Your task to perform on an android device: manage bookmarks in the chrome app Image 0: 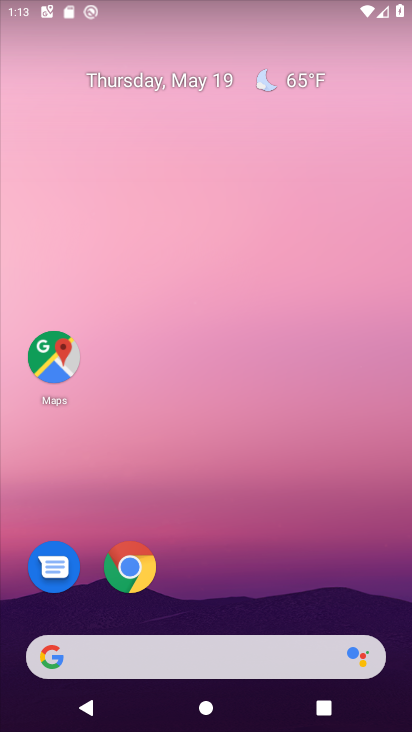
Step 0: click (118, 567)
Your task to perform on an android device: manage bookmarks in the chrome app Image 1: 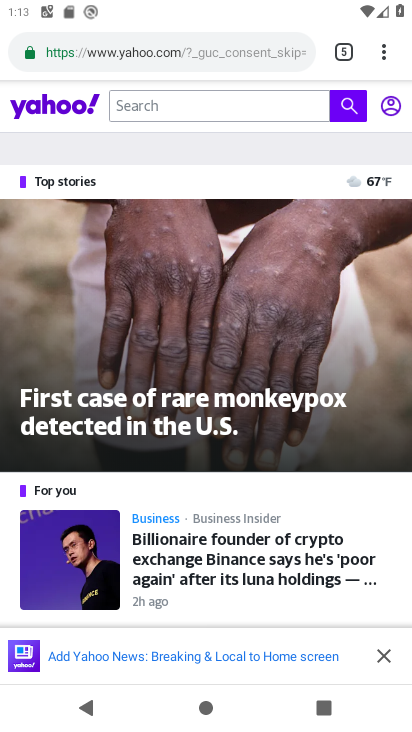
Step 1: click (391, 43)
Your task to perform on an android device: manage bookmarks in the chrome app Image 2: 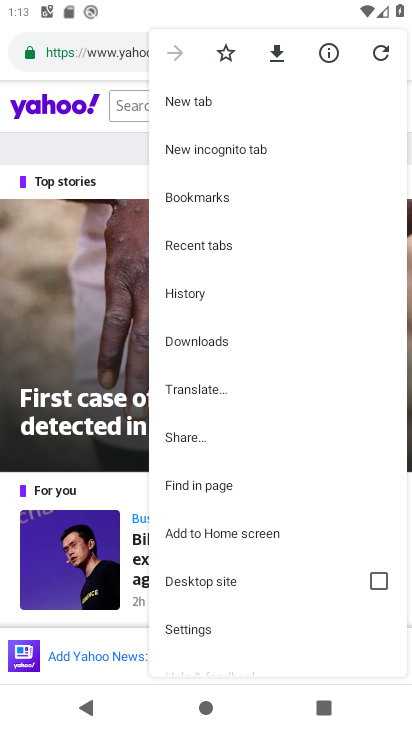
Step 2: click (260, 194)
Your task to perform on an android device: manage bookmarks in the chrome app Image 3: 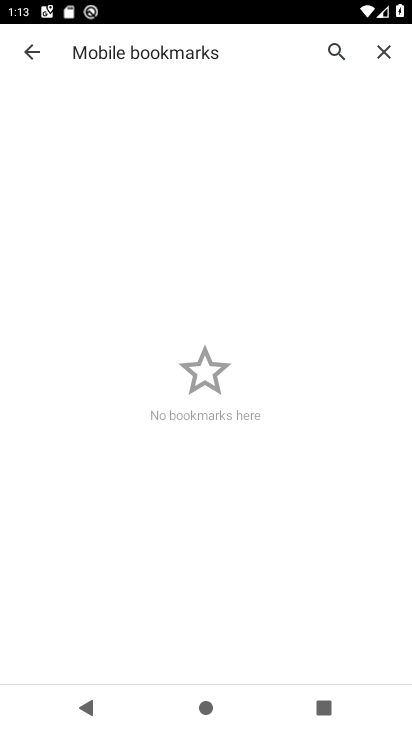
Step 3: task complete